Your task to perform on an android device: toggle improve location accuracy Image 0: 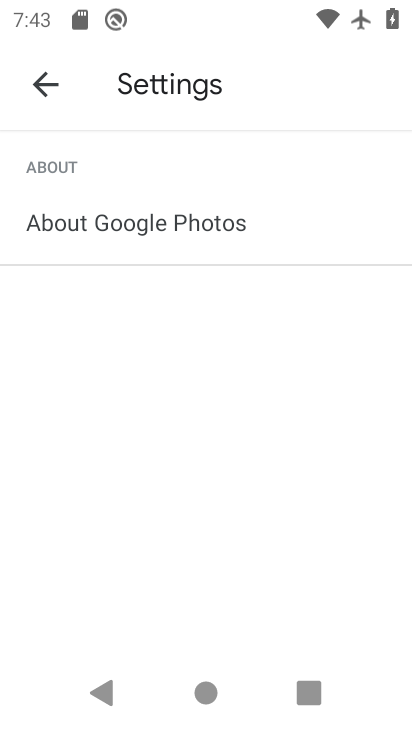
Step 0: press home button
Your task to perform on an android device: toggle improve location accuracy Image 1: 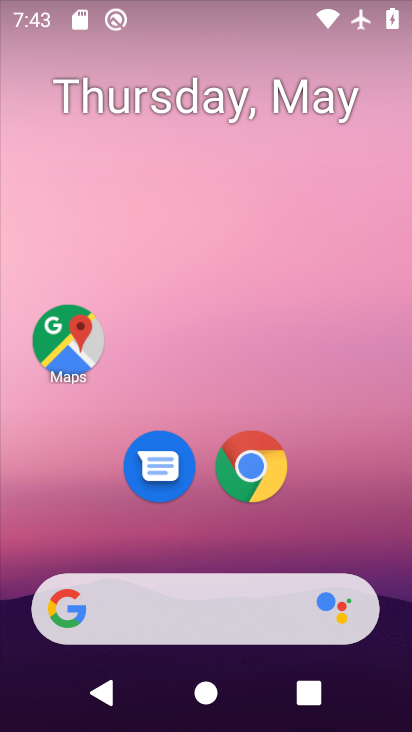
Step 1: drag from (353, 514) to (334, 105)
Your task to perform on an android device: toggle improve location accuracy Image 2: 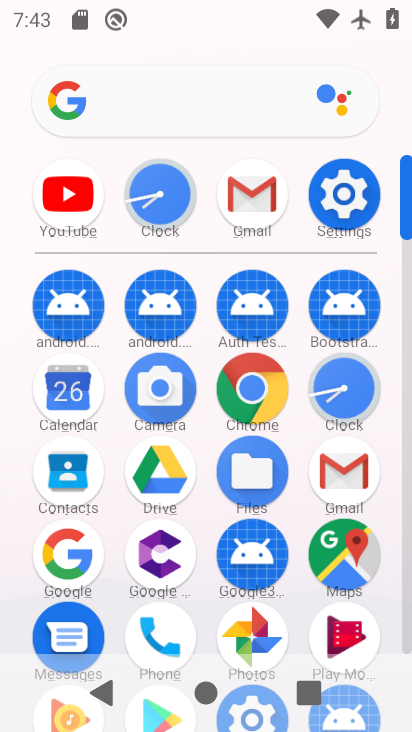
Step 2: click (337, 218)
Your task to perform on an android device: toggle improve location accuracy Image 3: 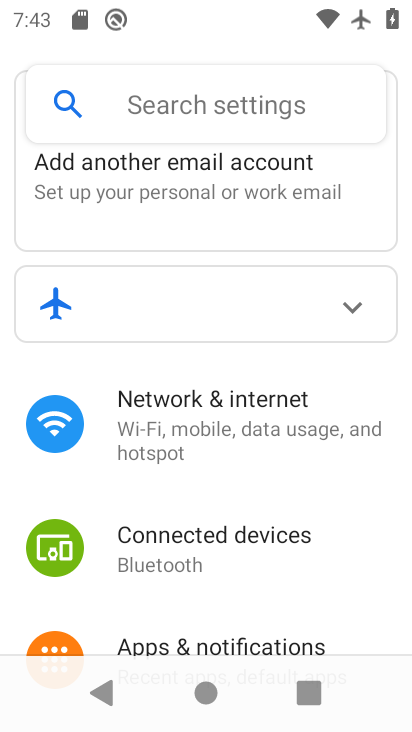
Step 3: drag from (212, 575) to (226, 12)
Your task to perform on an android device: toggle improve location accuracy Image 4: 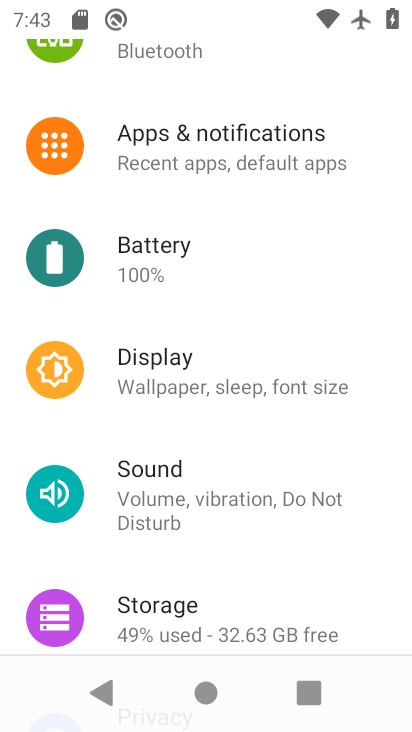
Step 4: drag from (230, 580) to (240, 200)
Your task to perform on an android device: toggle improve location accuracy Image 5: 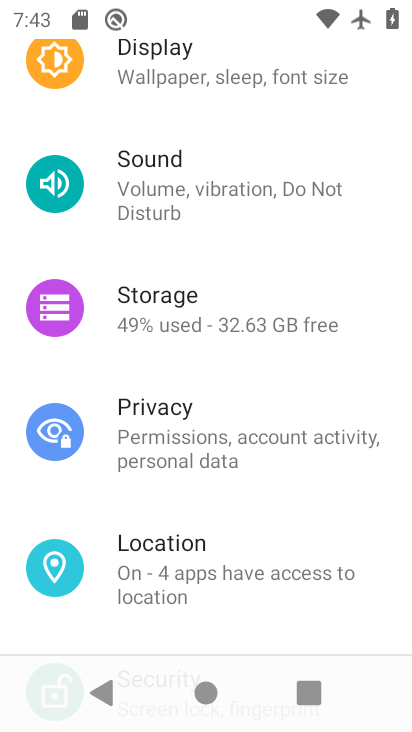
Step 5: click (210, 536)
Your task to perform on an android device: toggle improve location accuracy Image 6: 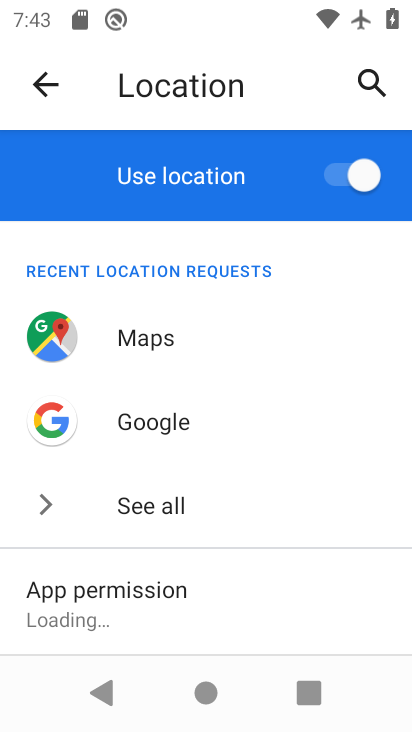
Step 6: drag from (223, 596) to (248, 159)
Your task to perform on an android device: toggle improve location accuracy Image 7: 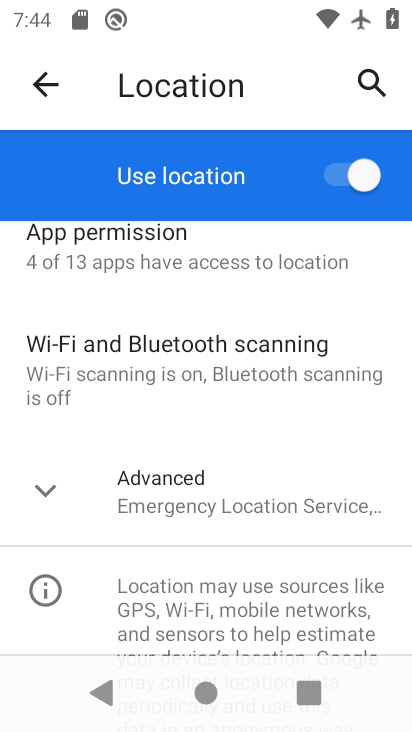
Step 7: click (154, 511)
Your task to perform on an android device: toggle improve location accuracy Image 8: 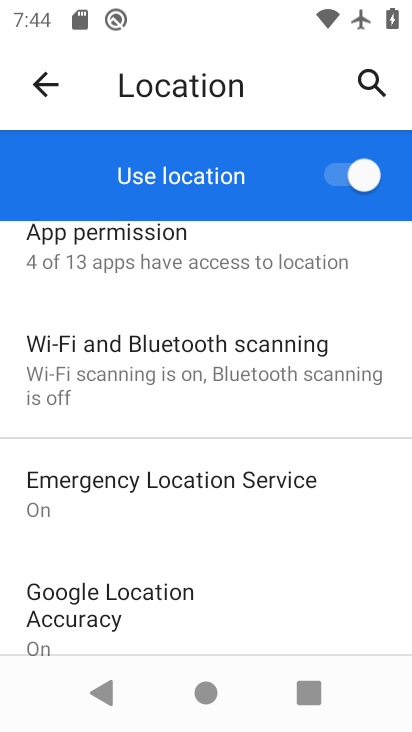
Step 8: task complete